Your task to perform on an android device: set the stopwatch Image 0: 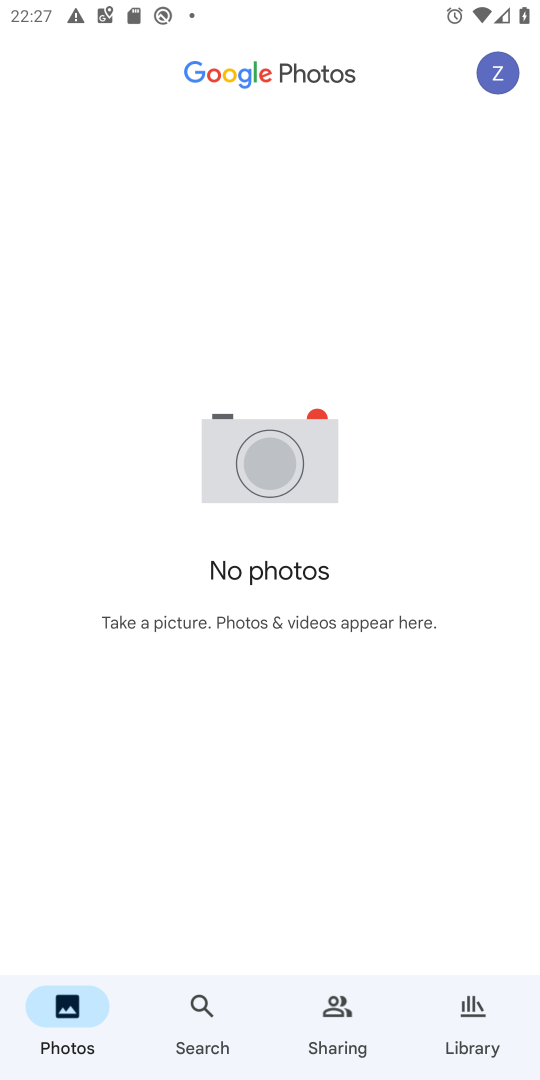
Step 0: press home button
Your task to perform on an android device: set the stopwatch Image 1: 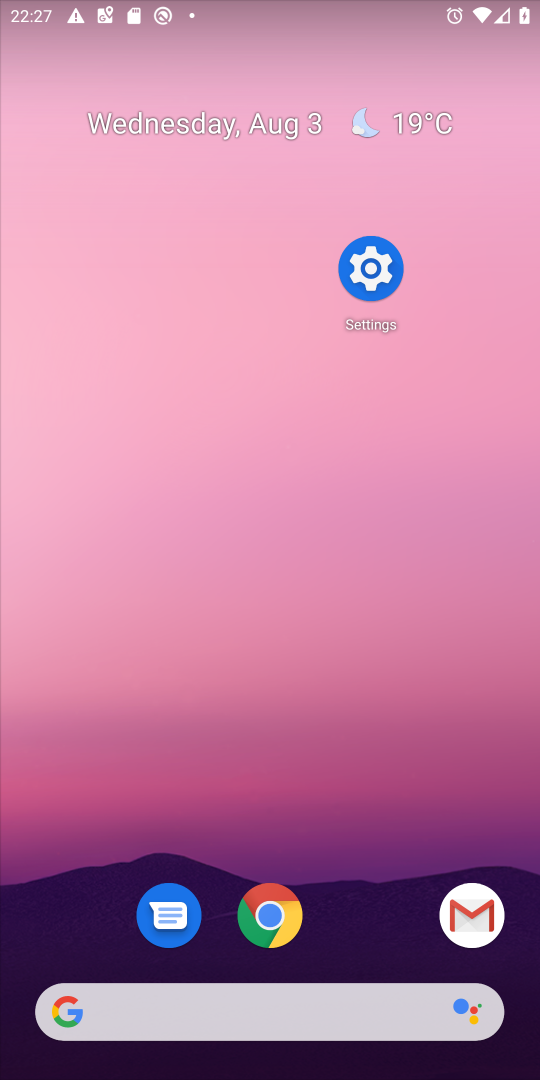
Step 1: drag from (336, 1029) to (310, 352)
Your task to perform on an android device: set the stopwatch Image 2: 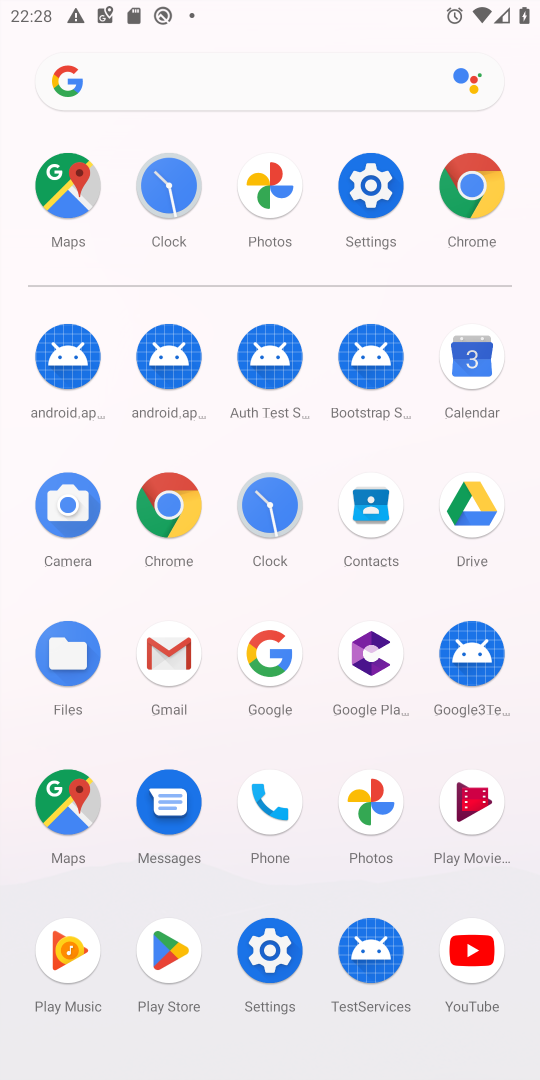
Step 2: click (169, 209)
Your task to perform on an android device: set the stopwatch Image 3: 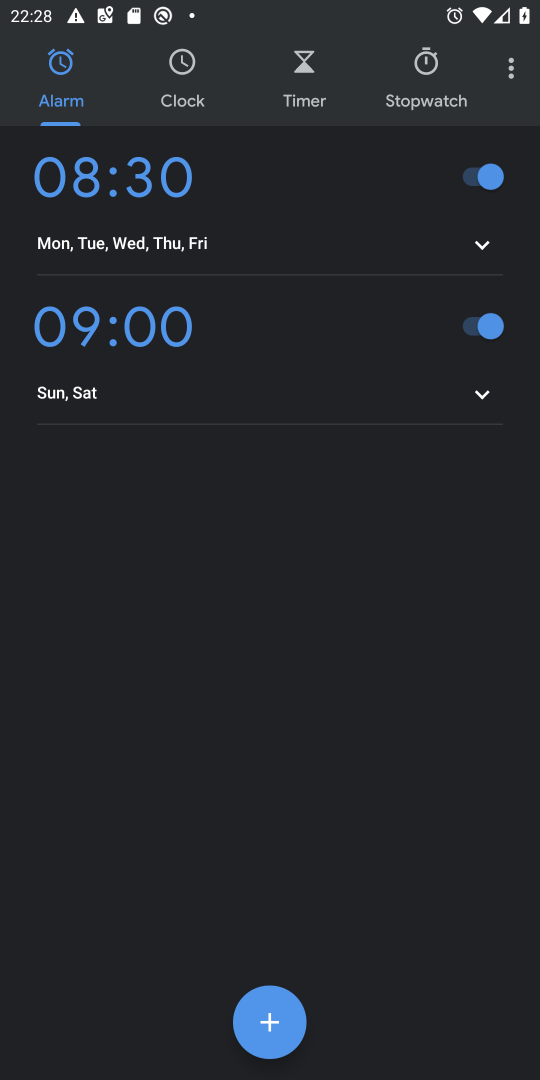
Step 3: click (420, 90)
Your task to perform on an android device: set the stopwatch Image 4: 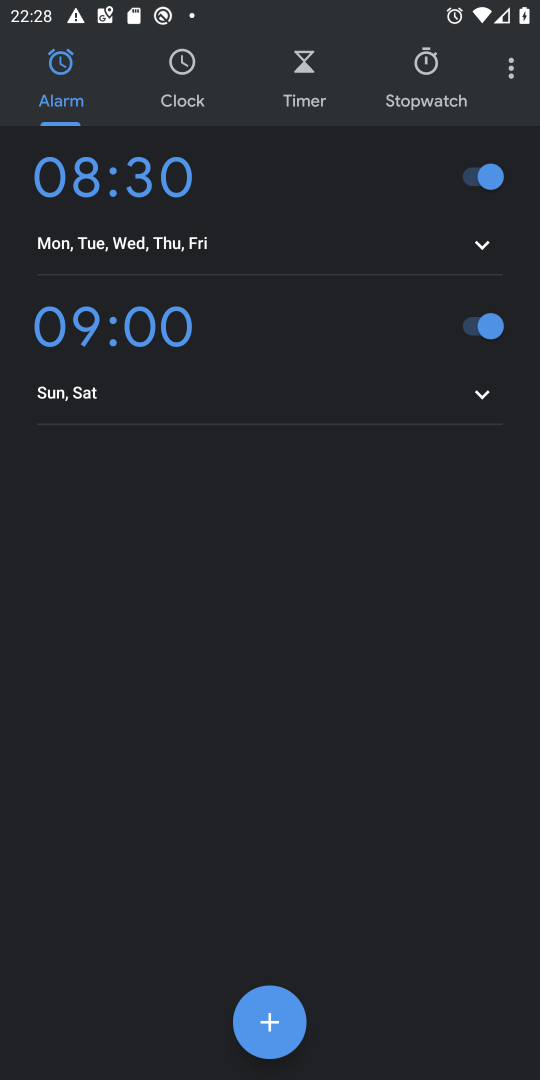
Step 4: click (395, 98)
Your task to perform on an android device: set the stopwatch Image 5: 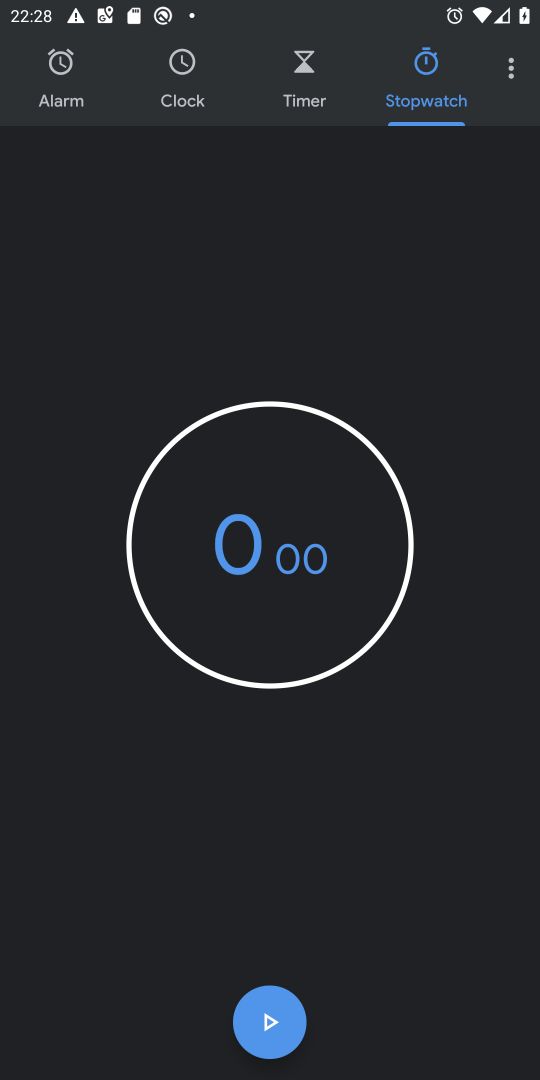
Step 5: click (255, 1020)
Your task to perform on an android device: set the stopwatch Image 6: 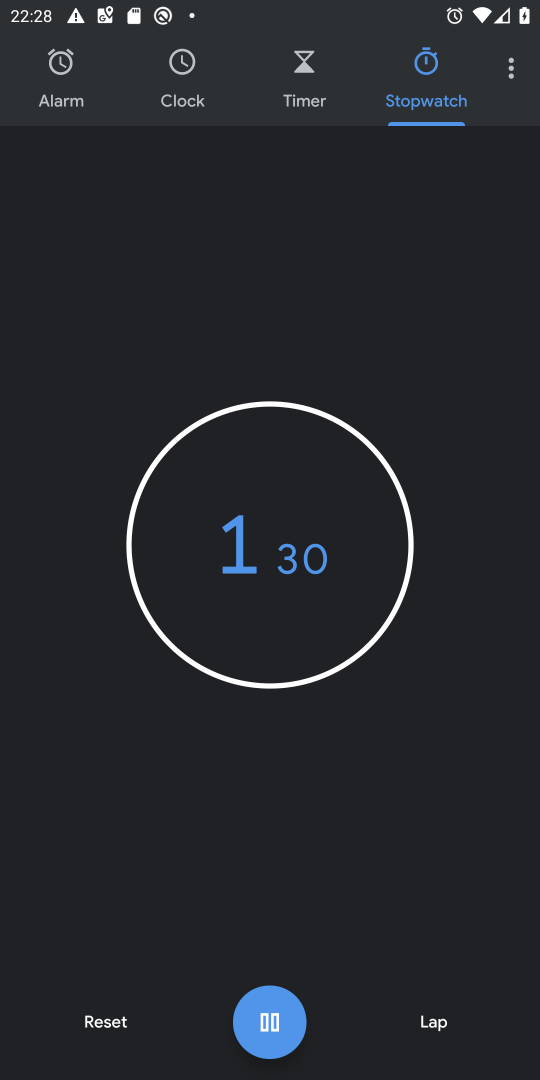
Step 6: click (255, 1020)
Your task to perform on an android device: set the stopwatch Image 7: 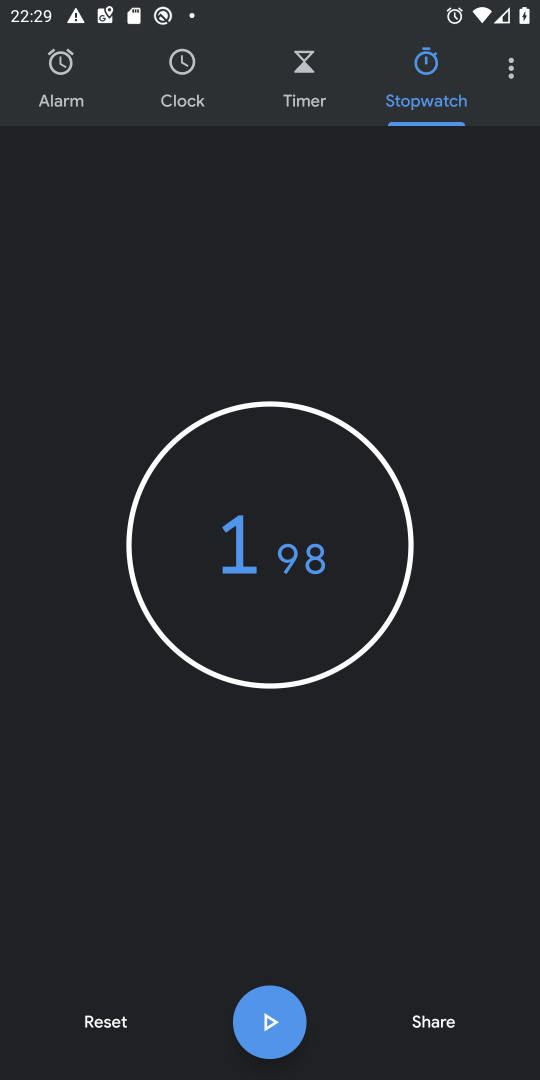
Step 7: task complete